Your task to perform on an android device: turn on notifications settings in the gmail app Image 0: 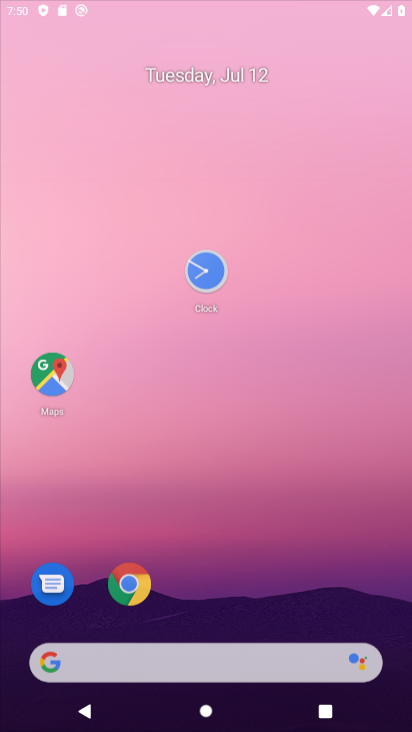
Step 0: click (266, 113)
Your task to perform on an android device: turn on notifications settings in the gmail app Image 1: 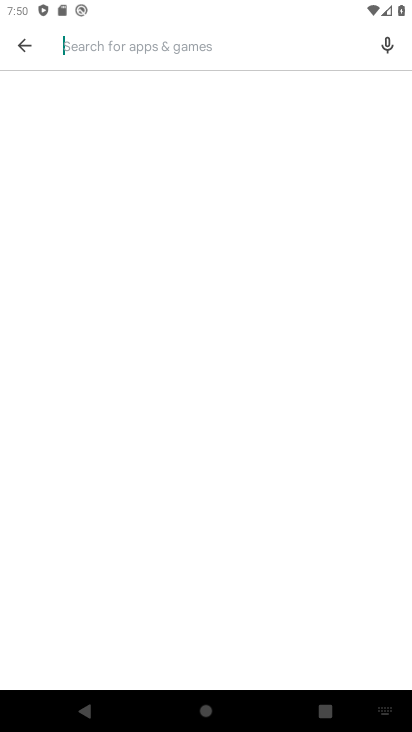
Step 1: press home button
Your task to perform on an android device: turn on notifications settings in the gmail app Image 2: 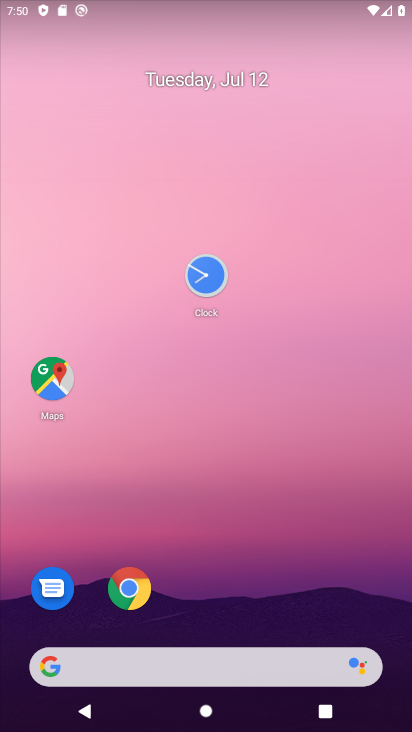
Step 2: drag from (333, 624) to (329, 50)
Your task to perform on an android device: turn on notifications settings in the gmail app Image 3: 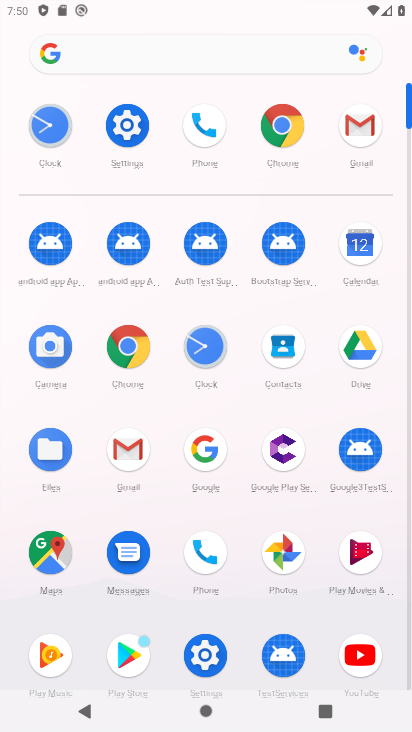
Step 3: click (365, 129)
Your task to perform on an android device: turn on notifications settings in the gmail app Image 4: 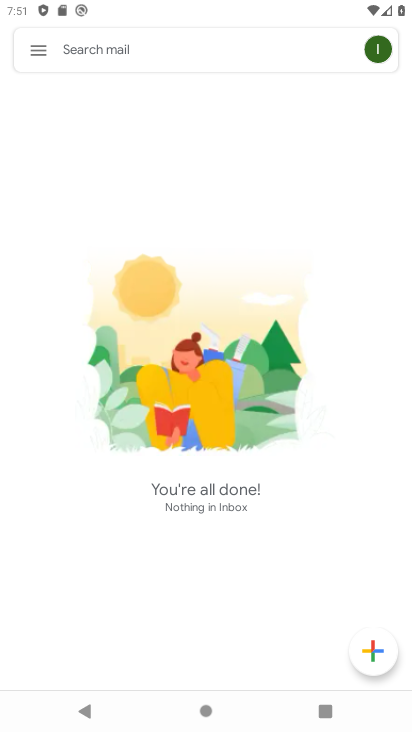
Step 4: click (33, 43)
Your task to perform on an android device: turn on notifications settings in the gmail app Image 5: 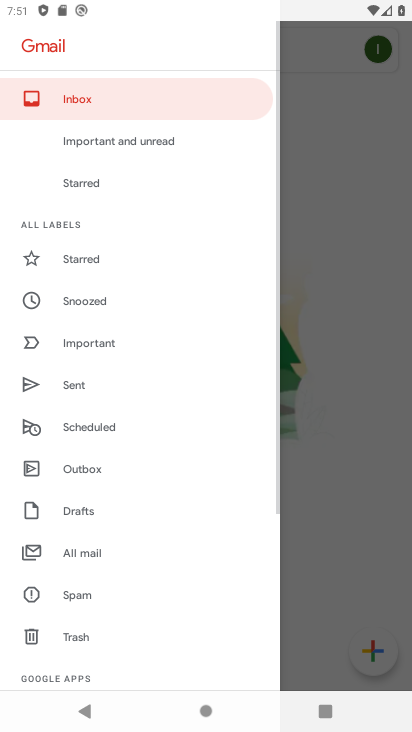
Step 5: drag from (143, 623) to (160, 153)
Your task to perform on an android device: turn on notifications settings in the gmail app Image 6: 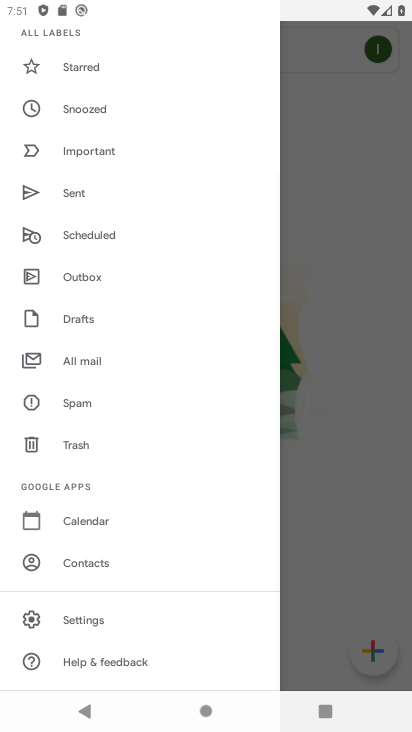
Step 6: click (93, 626)
Your task to perform on an android device: turn on notifications settings in the gmail app Image 7: 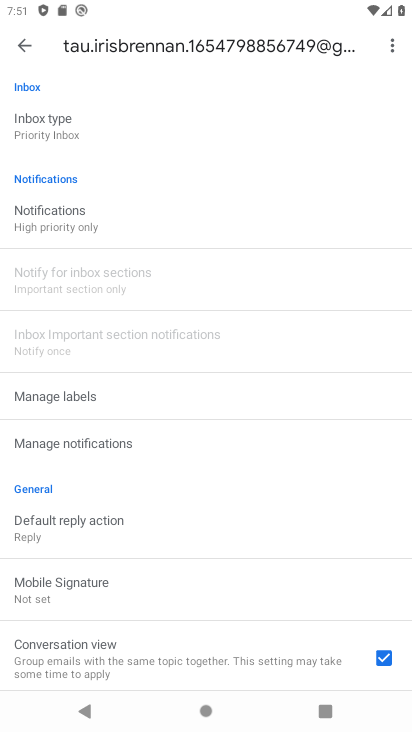
Step 7: click (72, 220)
Your task to perform on an android device: turn on notifications settings in the gmail app Image 8: 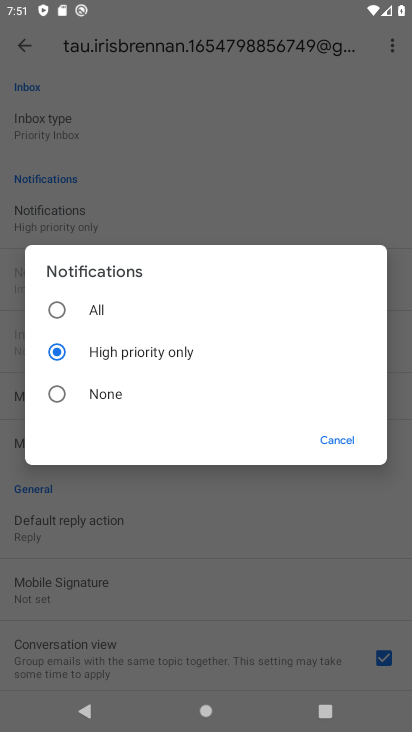
Step 8: click (68, 309)
Your task to perform on an android device: turn on notifications settings in the gmail app Image 9: 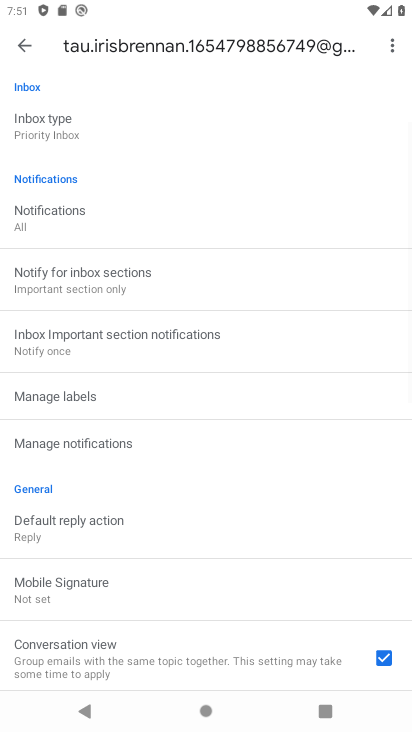
Step 9: task complete